Your task to perform on an android device: turn off smart reply in the gmail app Image 0: 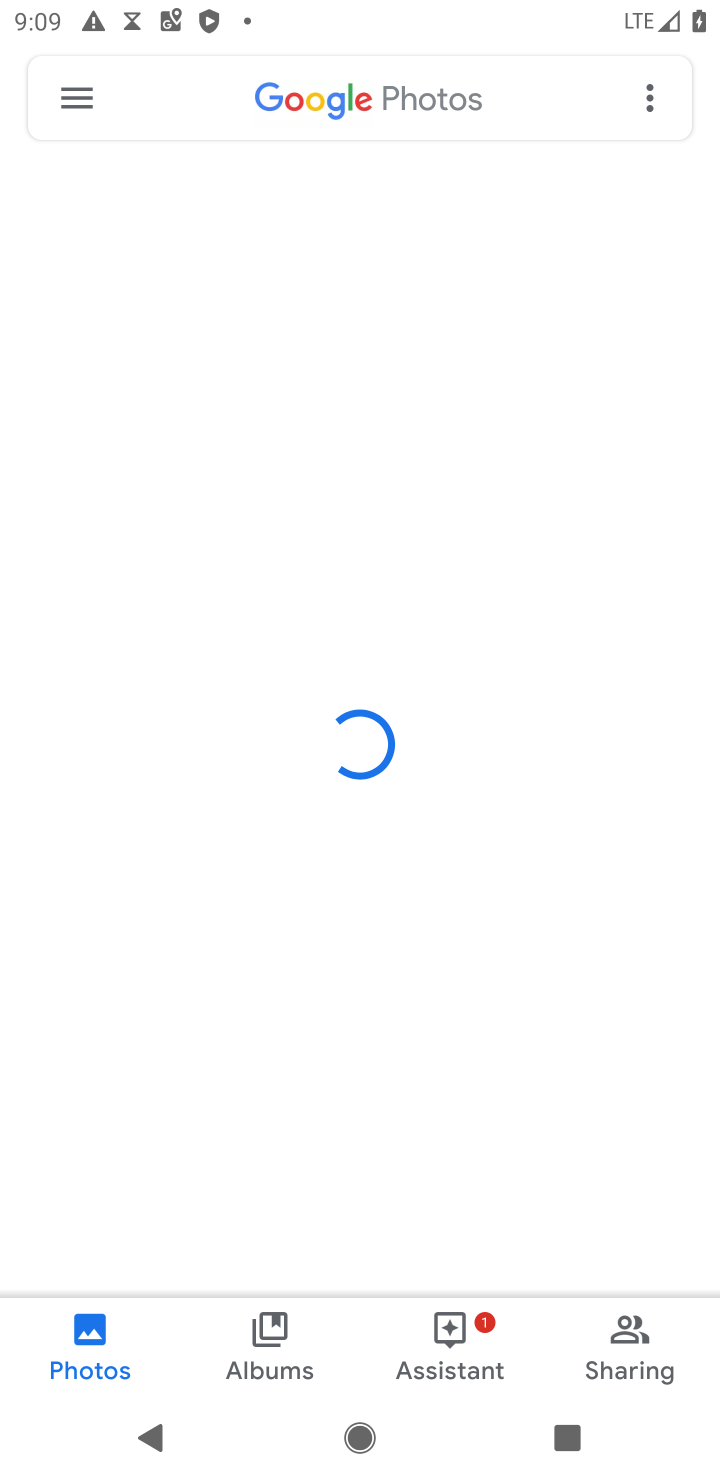
Step 0: press back button
Your task to perform on an android device: turn off smart reply in the gmail app Image 1: 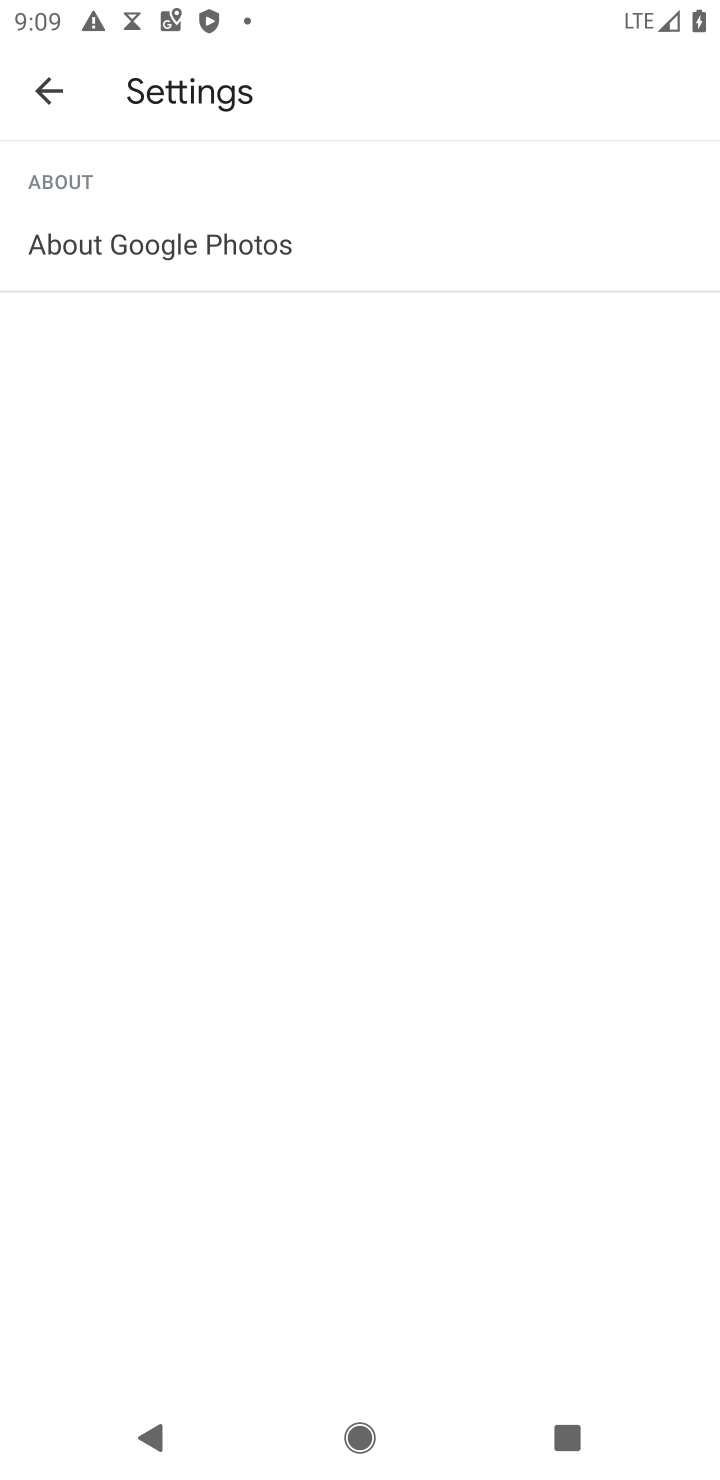
Step 1: press back button
Your task to perform on an android device: turn off smart reply in the gmail app Image 2: 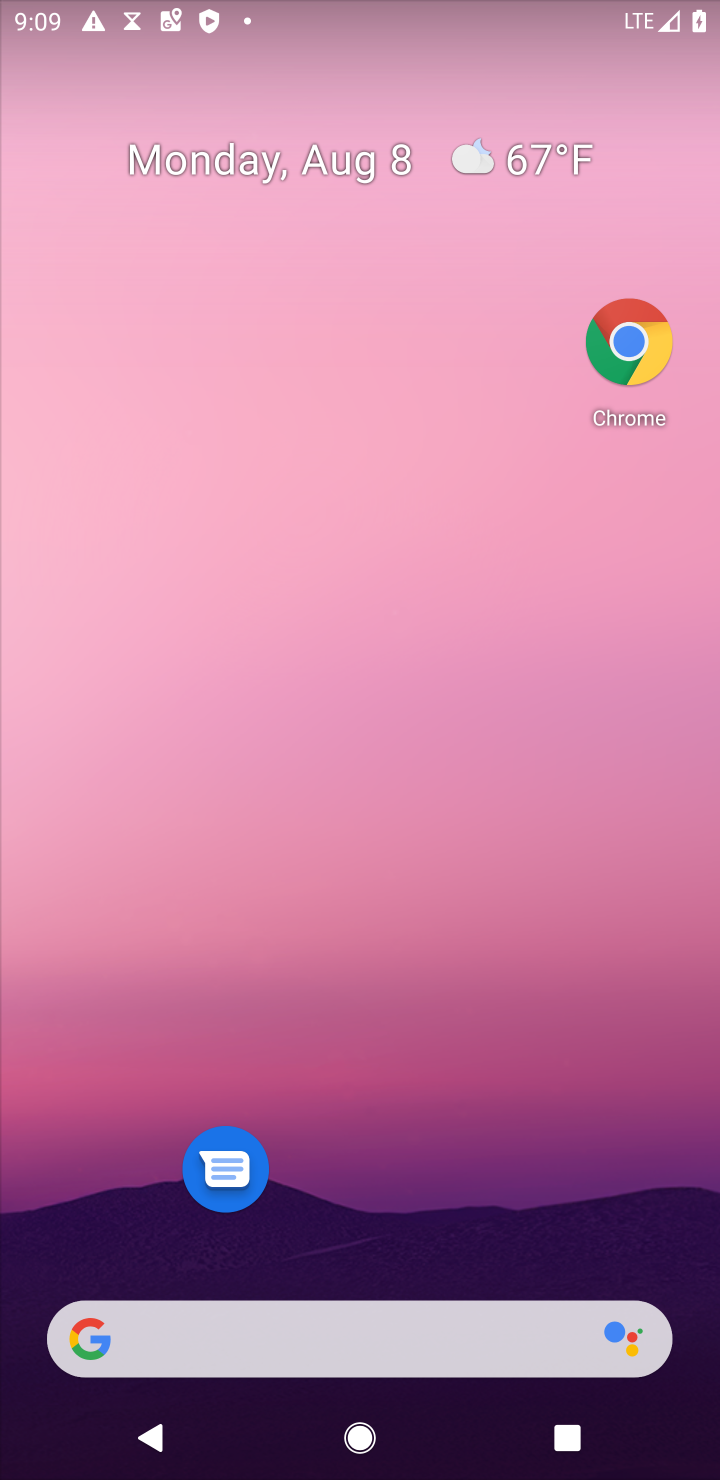
Step 2: drag from (365, 1144) to (530, 106)
Your task to perform on an android device: turn off smart reply in the gmail app Image 3: 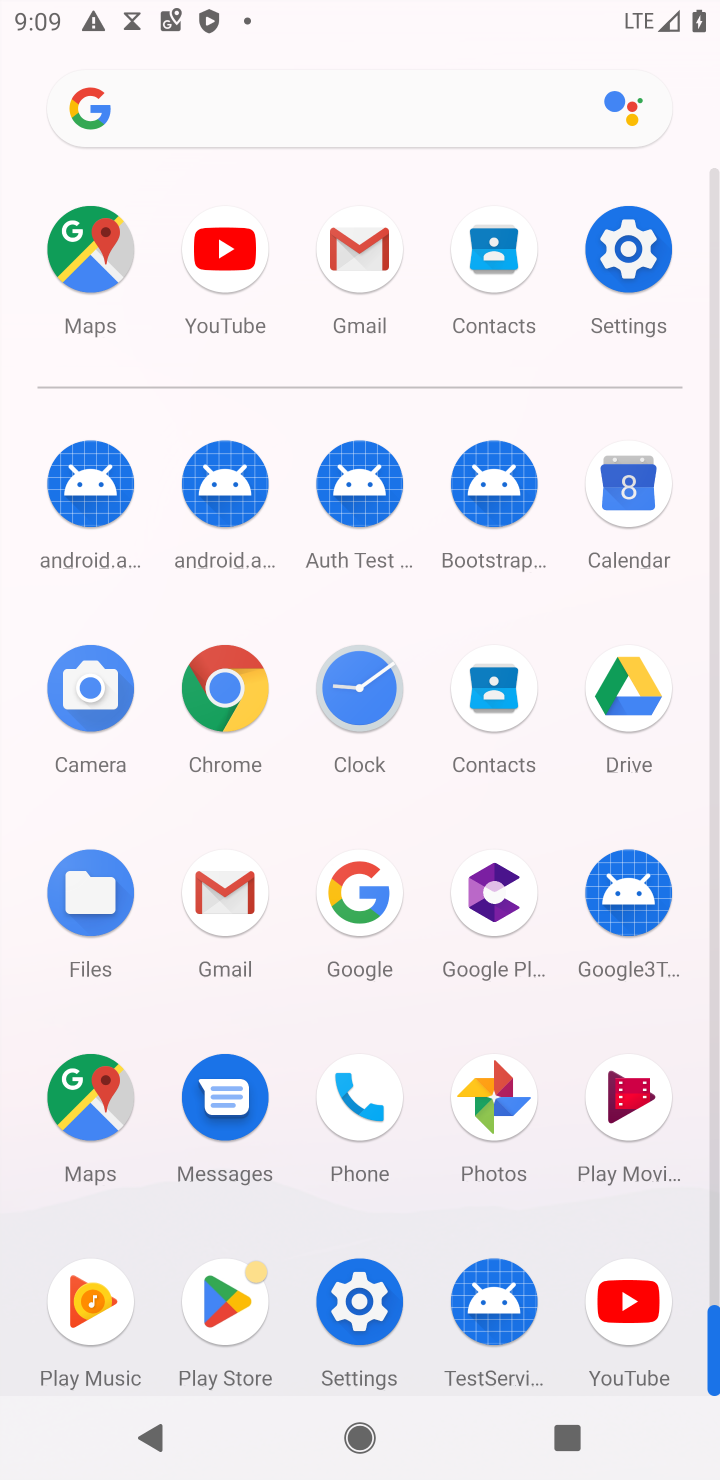
Step 3: click (380, 256)
Your task to perform on an android device: turn off smart reply in the gmail app Image 4: 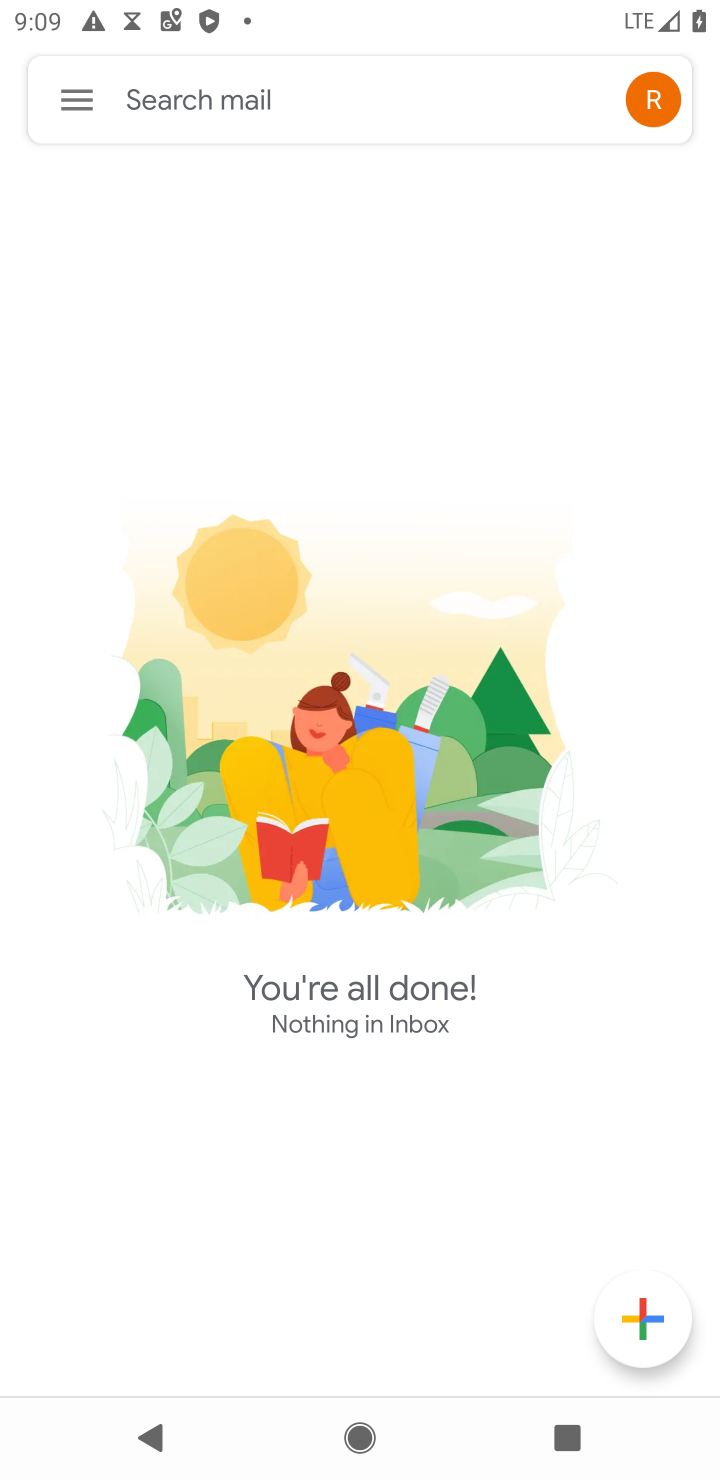
Step 4: click (78, 97)
Your task to perform on an android device: turn off smart reply in the gmail app Image 5: 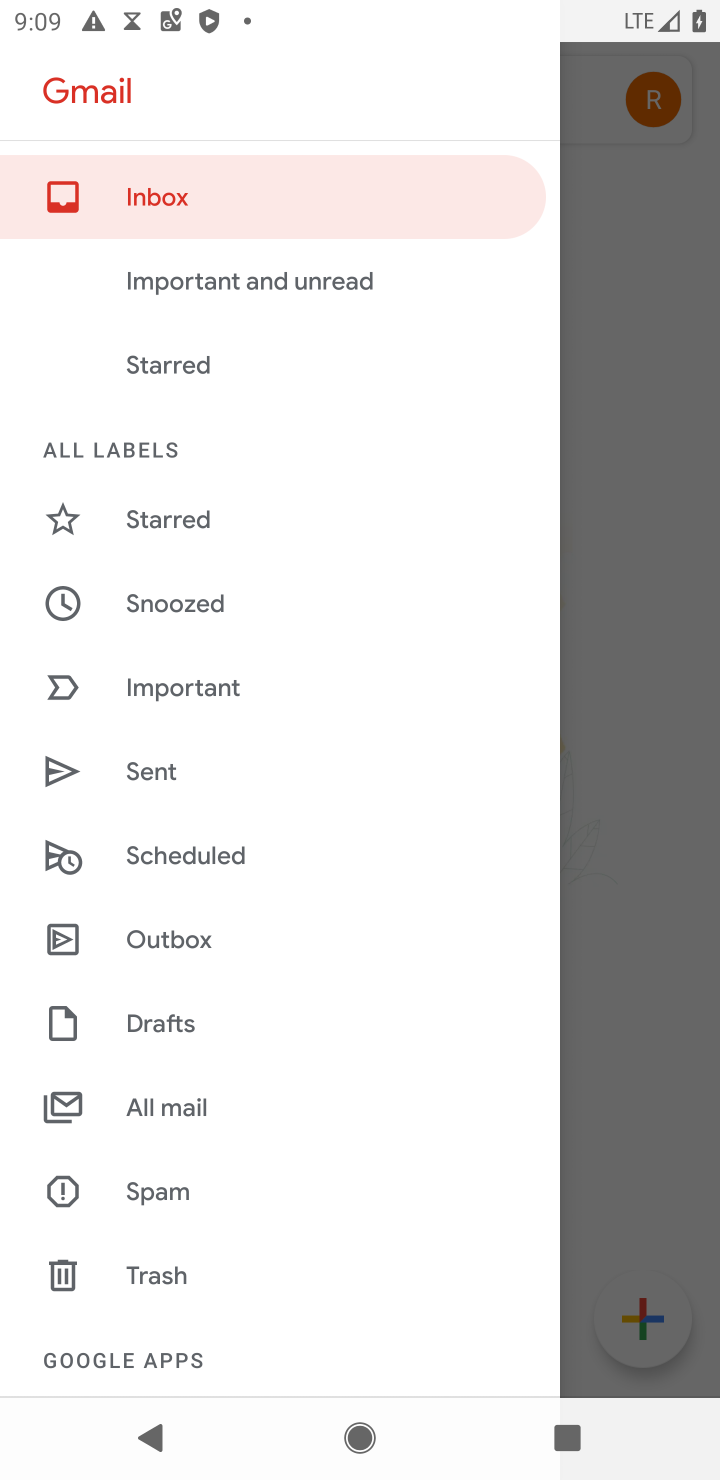
Step 5: drag from (230, 1325) to (383, 173)
Your task to perform on an android device: turn off smart reply in the gmail app Image 6: 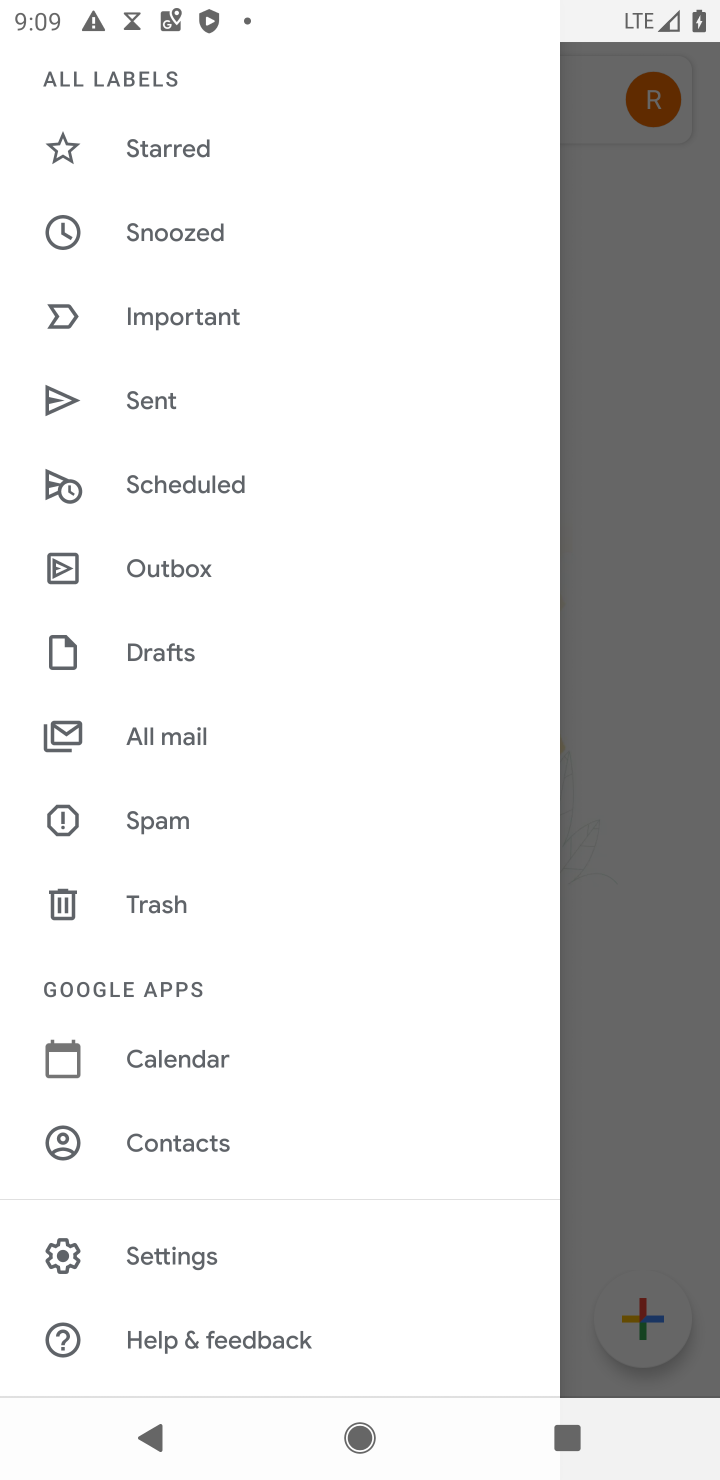
Step 6: click (218, 1261)
Your task to perform on an android device: turn off smart reply in the gmail app Image 7: 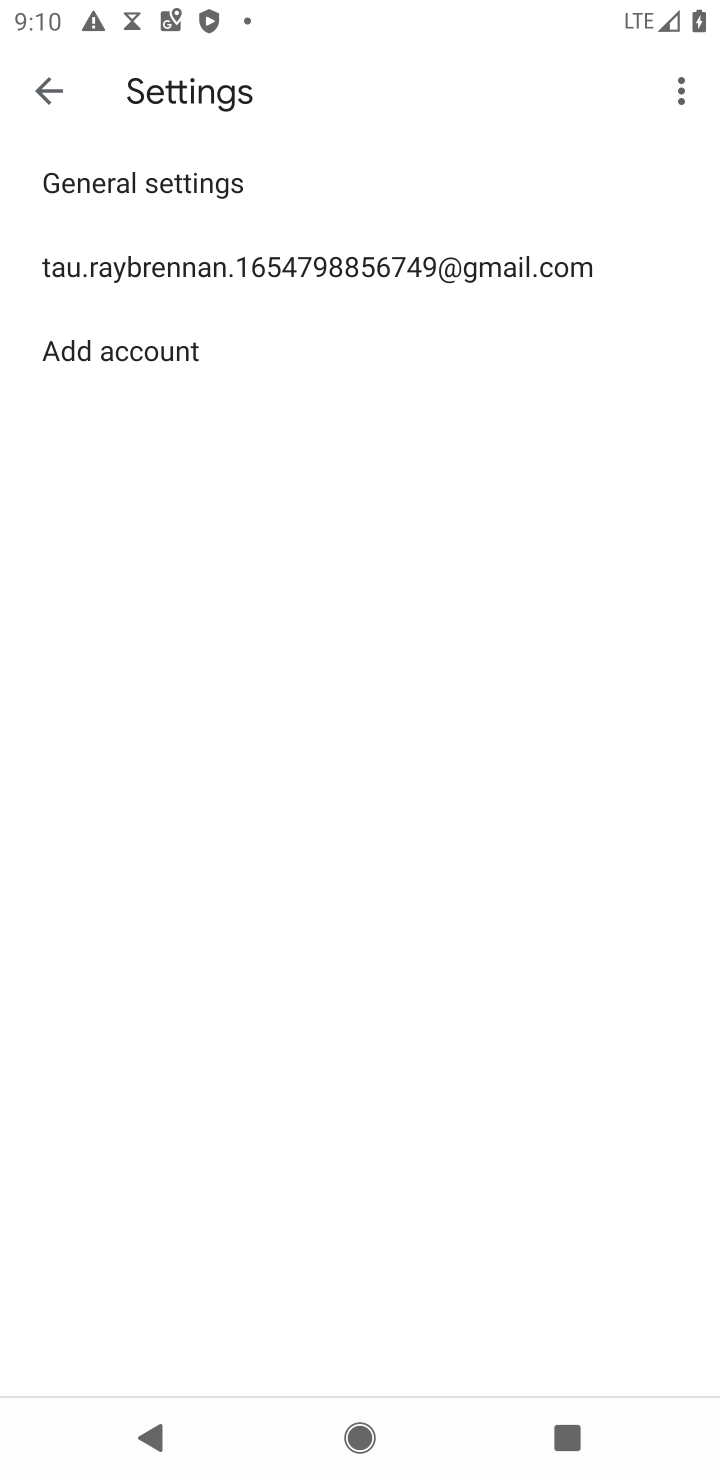
Step 7: click (231, 267)
Your task to perform on an android device: turn off smart reply in the gmail app Image 8: 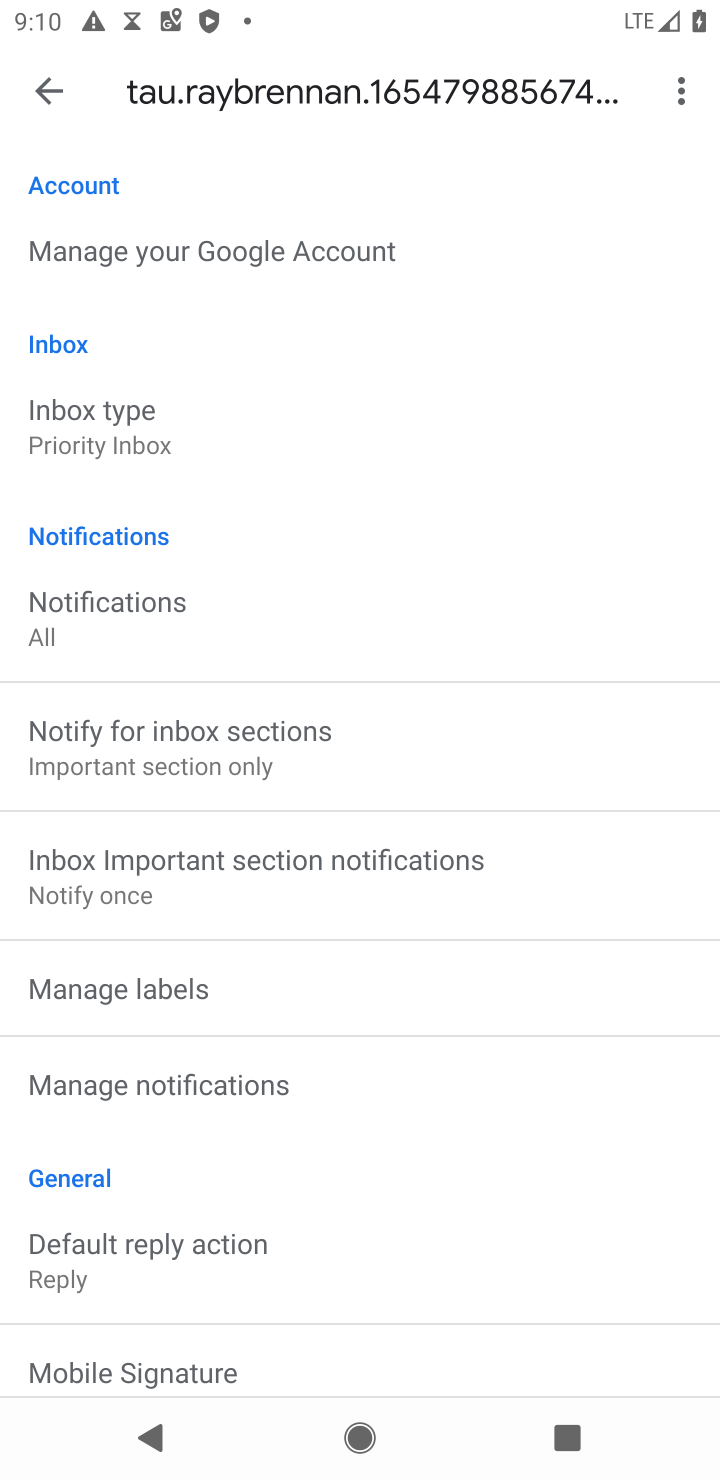
Step 8: drag from (381, 1259) to (546, 184)
Your task to perform on an android device: turn off smart reply in the gmail app Image 9: 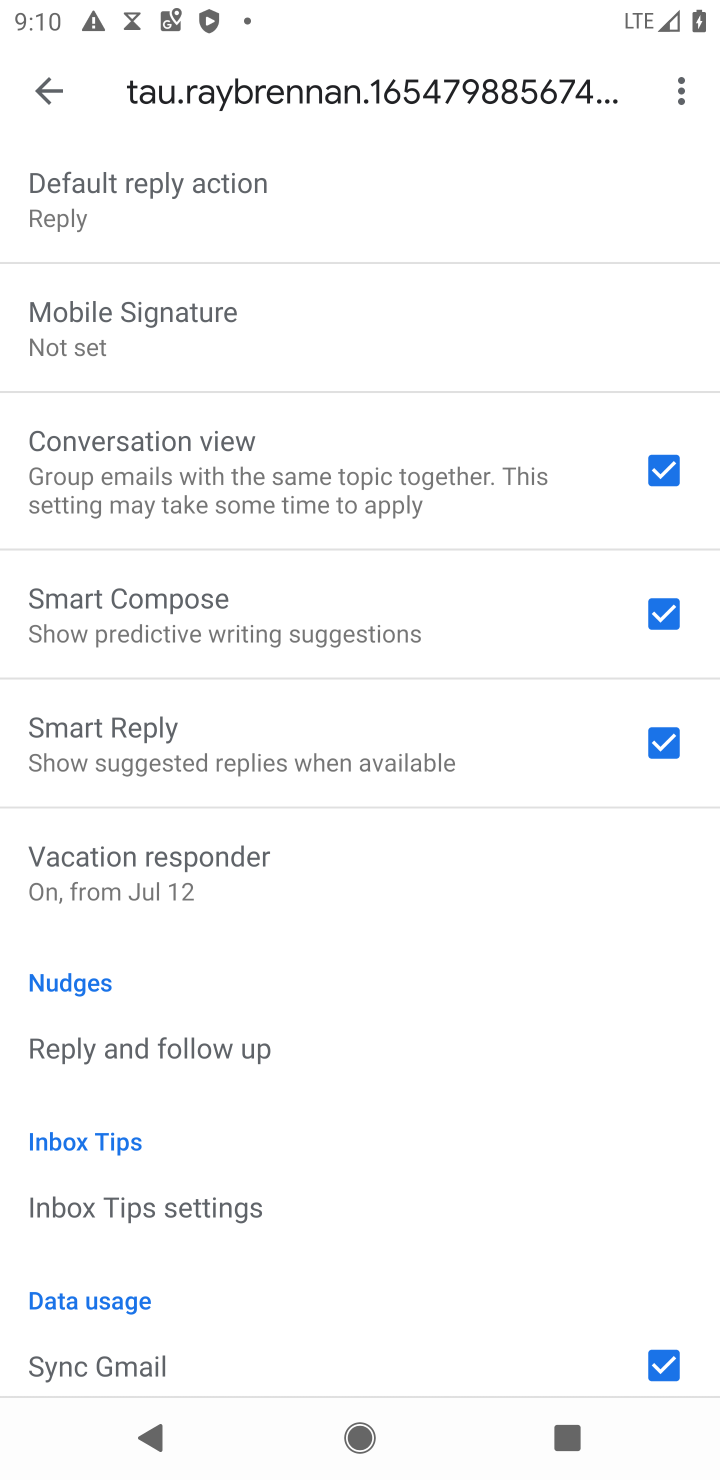
Step 9: click (667, 750)
Your task to perform on an android device: turn off smart reply in the gmail app Image 10: 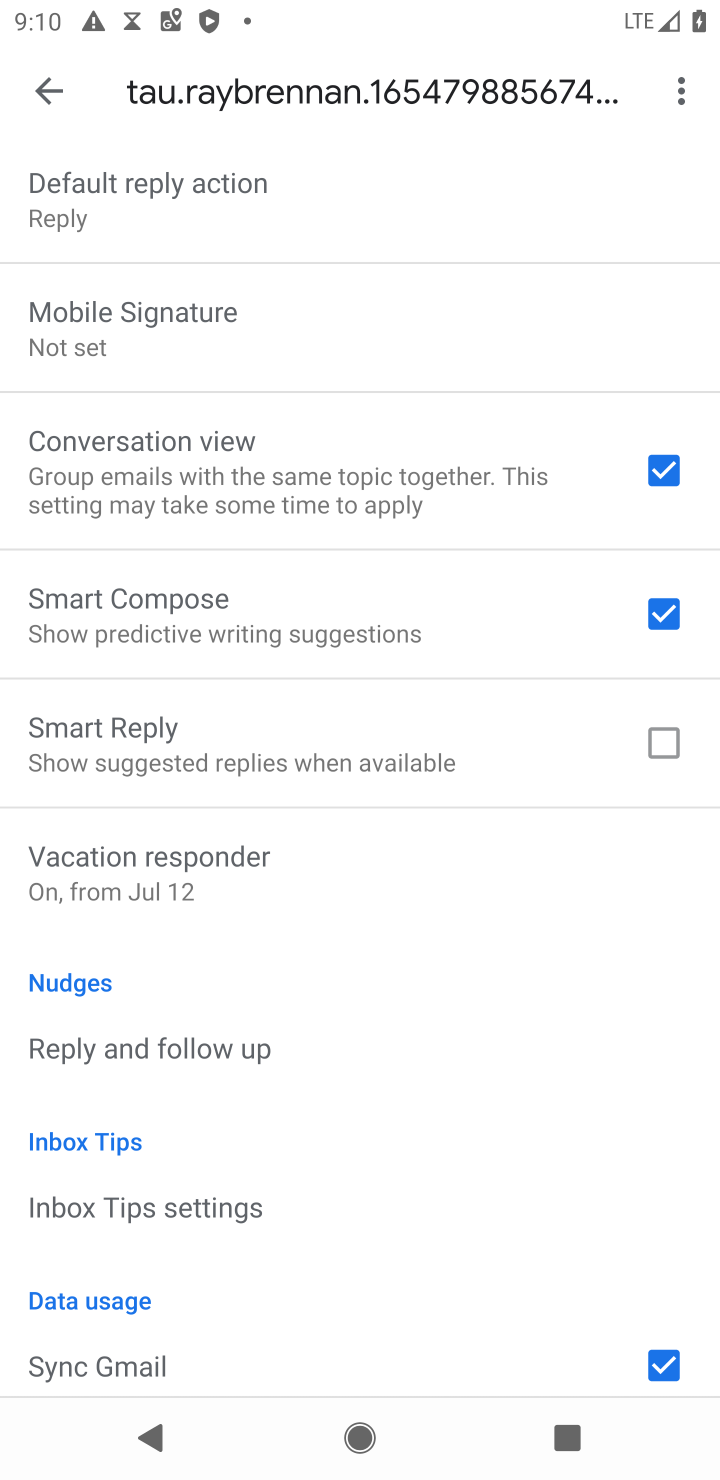
Step 10: task complete